Your task to perform on an android device: star an email in the gmail app Image 0: 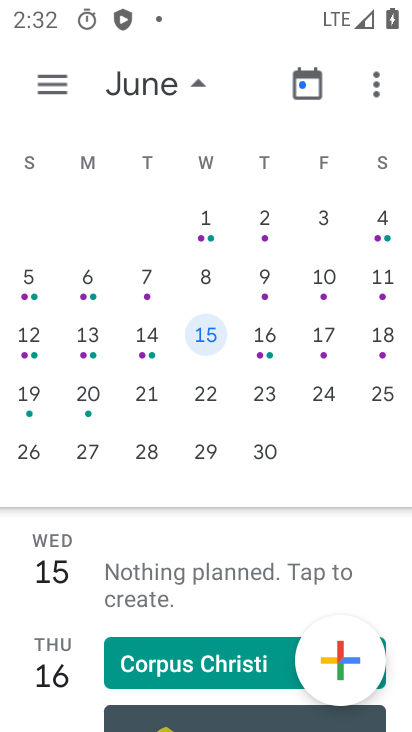
Step 0: press home button
Your task to perform on an android device: star an email in the gmail app Image 1: 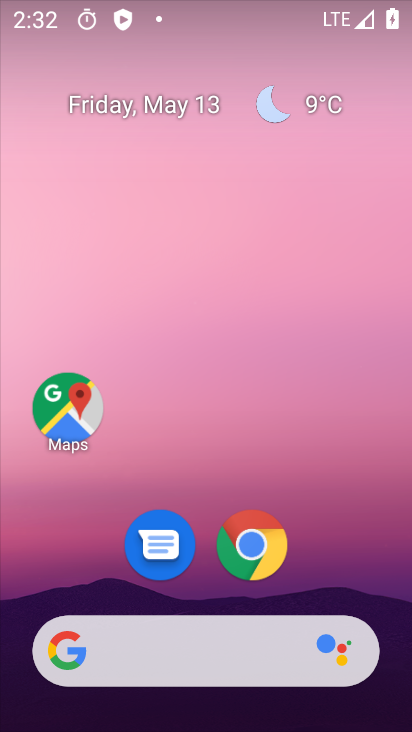
Step 1: drag from (334, 519) to (346, 133)
Your task to perform on an android device: star an email in the gmail app Image 2: 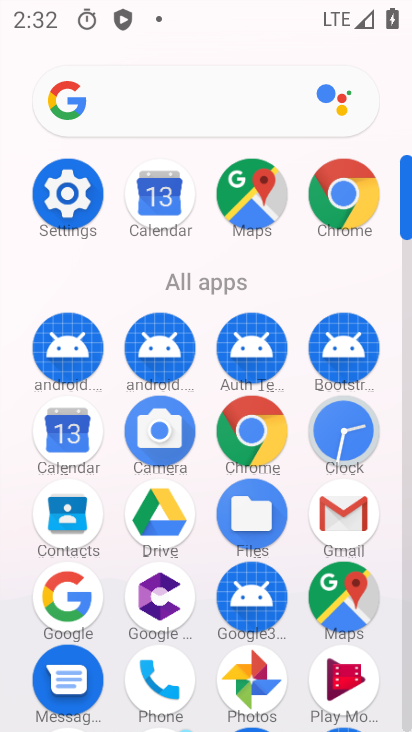
Step 2: click (331, 507)
Your task to perform on an android device: star an email in the gmail app Image 3: 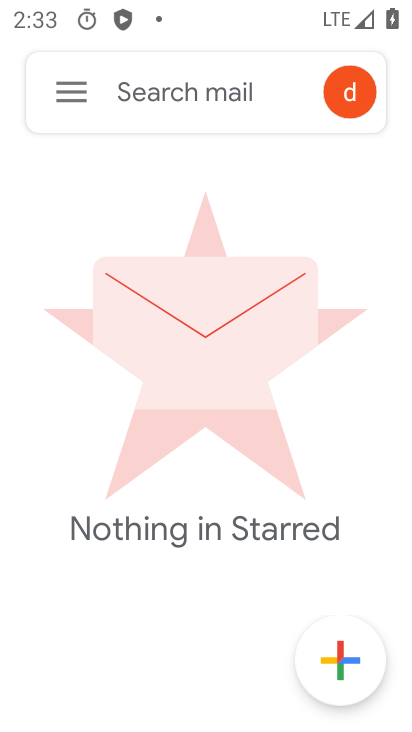
Step 3: click (78, 85)
Your task to perform on an android device: star an email in the gmail app Image 4: 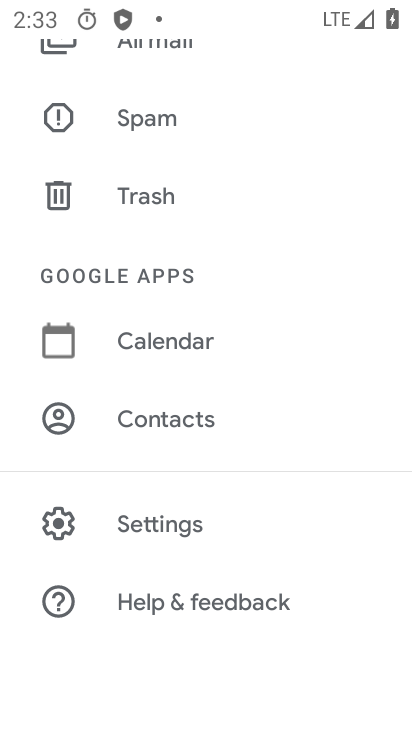
Step 4: drag from (295, 145) to (312, 607)
Your task to perform on an android device: star an email in the gmail app Image 5: 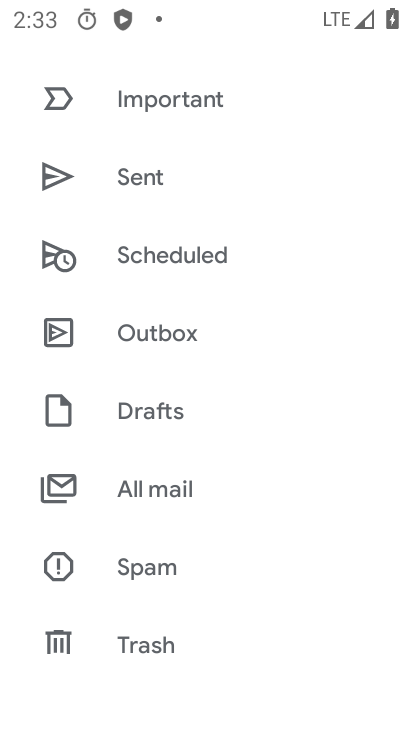
Step 5: drag from (289, 224) to (300, 631)
Your task to perform on an android device: star an email in the gmail app Image 6: 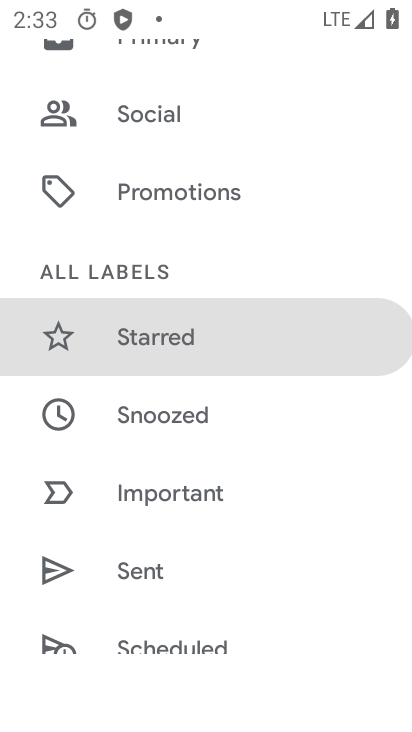
Step 6: drag from (269, 172) to (290, 622)
Your task to perform on an android device: star an email in the gmail app Image 7: 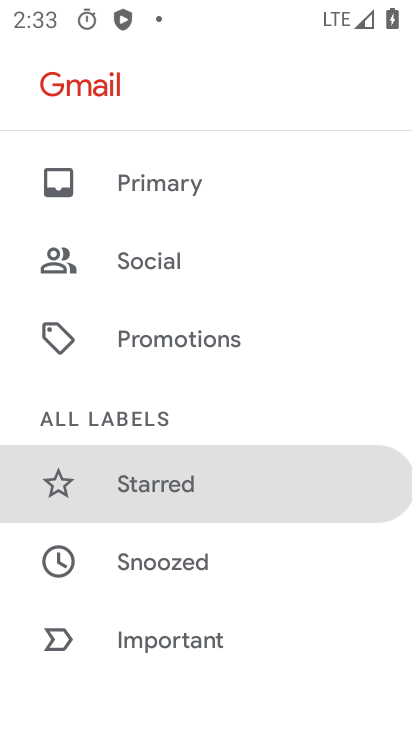
Step 7: click (169, 173)
Your task to perform on an android device: star an email in the gmail app Image 8: 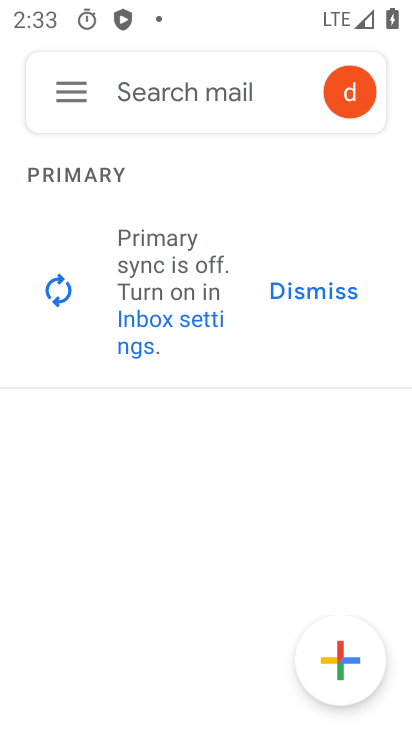
Step 8: task complete